Your task to perform on an android device: Empty the shopping cart on newegg. Image 0: 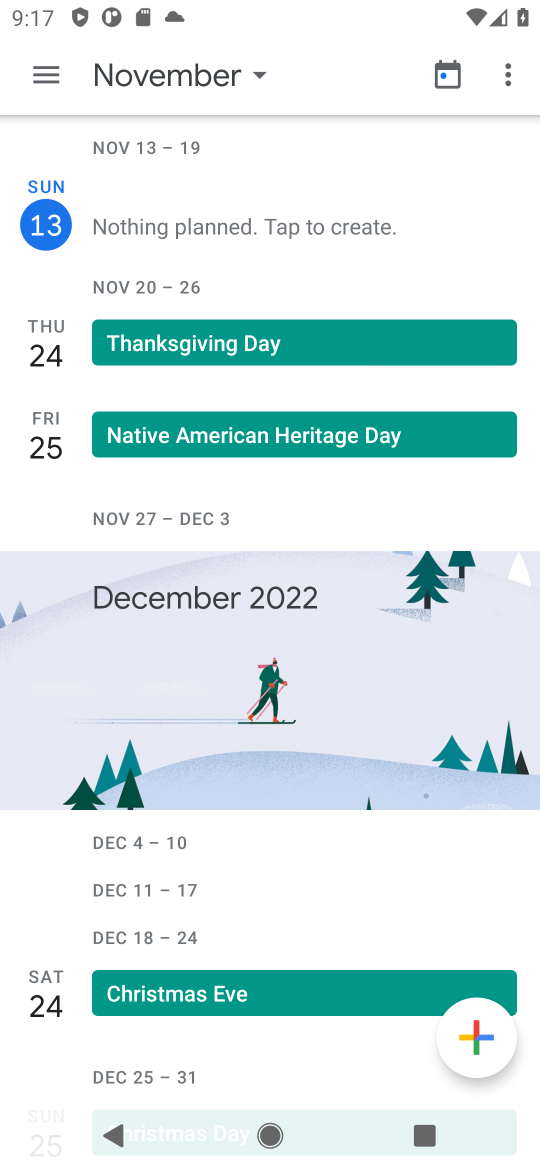
Step 0: press home button
Your task to perform on an android device: Empty the shopping cart on newegg. Image 1: 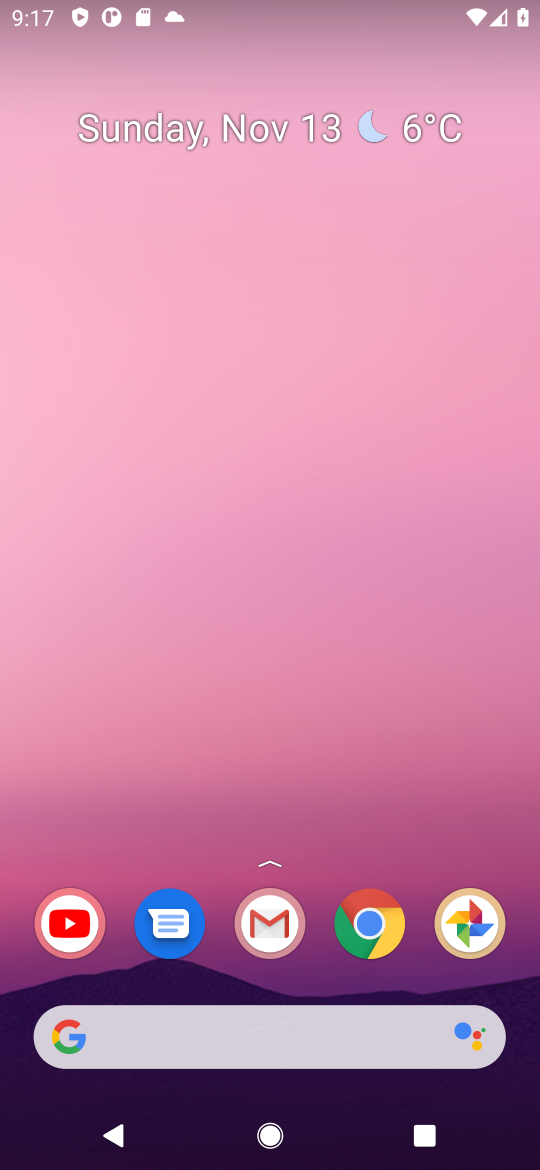
Step 1: click (379, 913)
Your task to perform on an android device: Empty the shopping cart on newegg. Image 2: 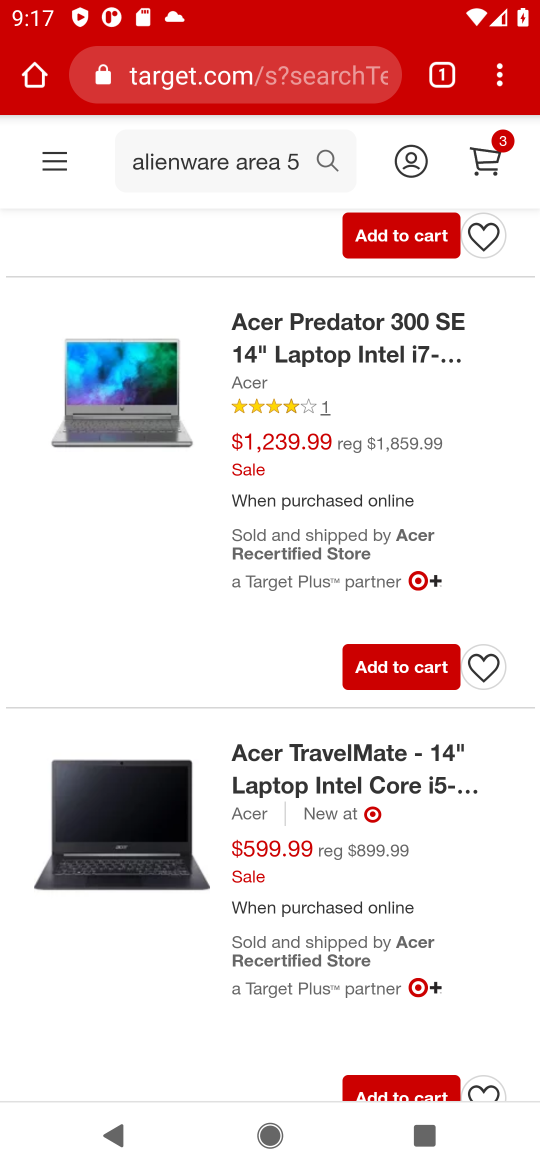
Step 2: click (310, 38)
Your task to perform on an android device: Empty the shopping cart on newegg. Image 3: 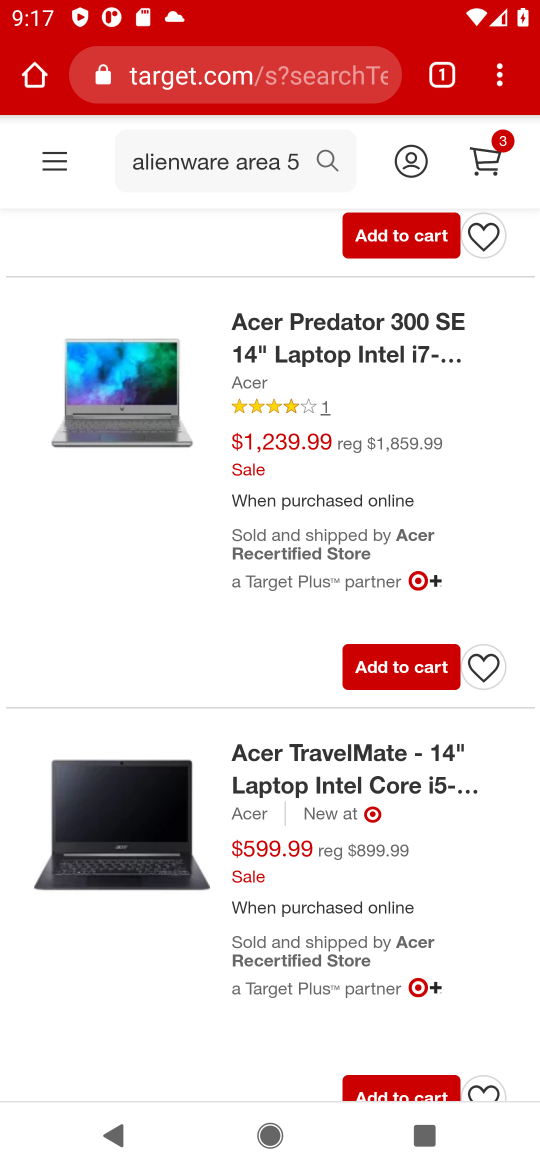
Step 3: click (317, 81)
Your task to perform on an android device: Empty the shopping cart on newegg. Image 4: 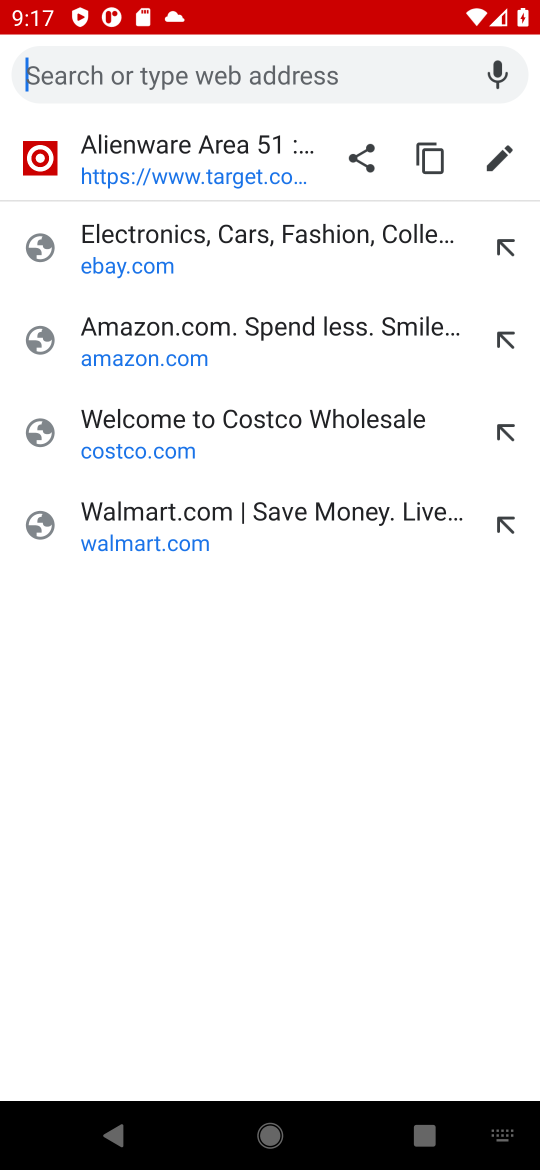
Step 4: type "newegg"
Your task to perform on an android device: Empty the shopping cart on newegg. Image 5: 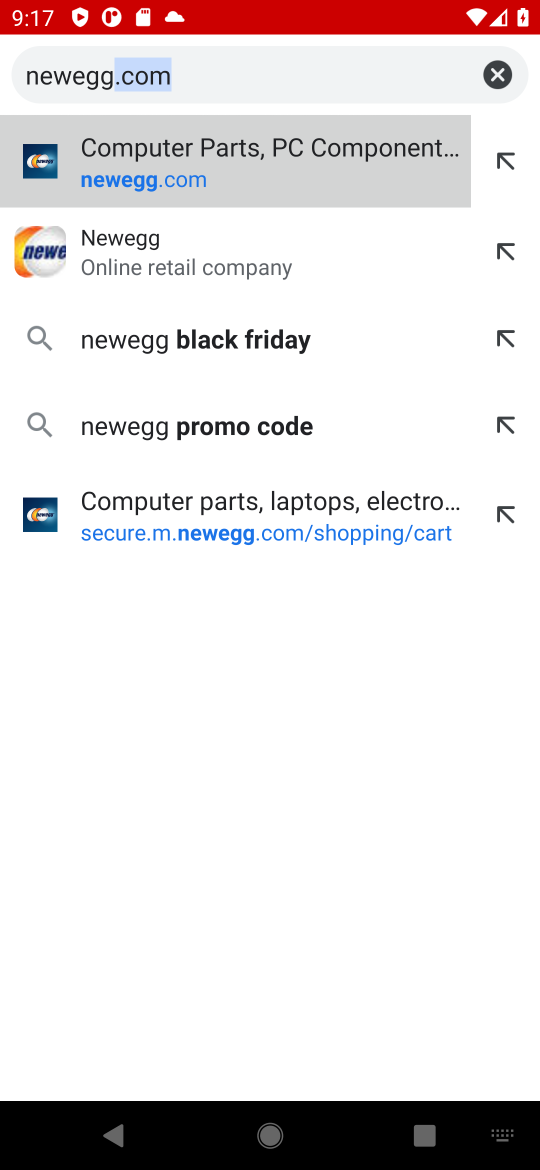
Step 5: press enter
Your task to perform on an android device: Empty the shopping cart on newegg. Image 6: 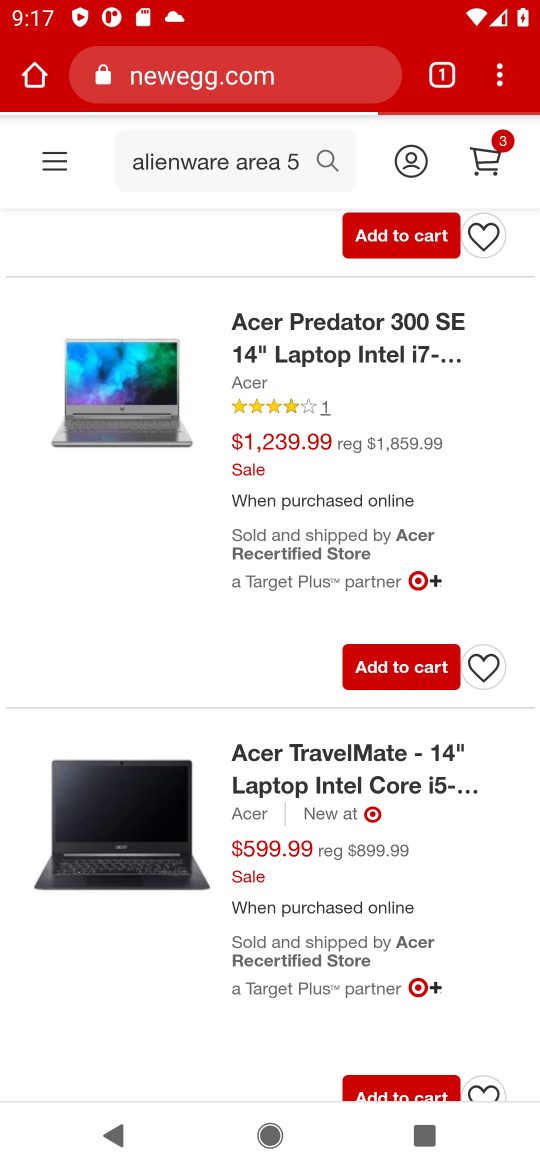
Step 6: click (288, 79)
Your task to perform on an android device: Empty the shopping cart on newegg. Image 7: 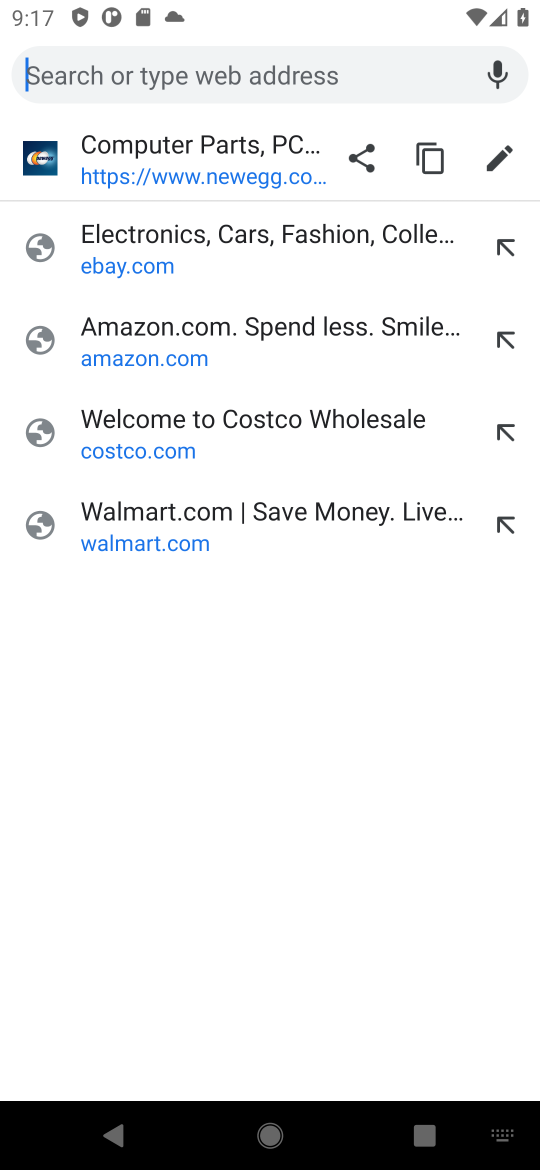
Step 7: click (257, 147)
Your task to perform on an android device: Empty the shopping cart on newegg. Image 8: 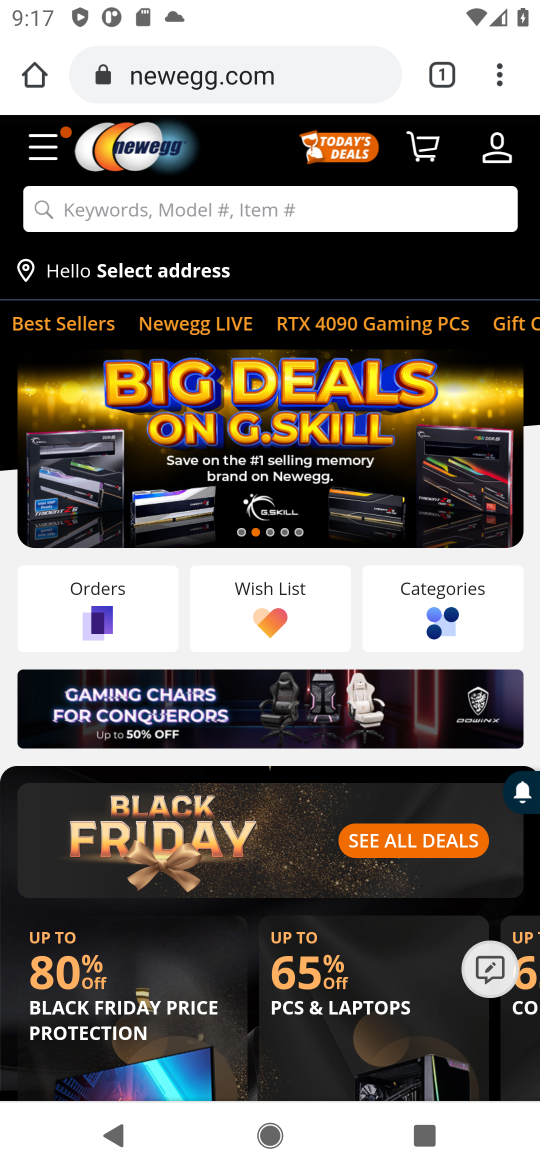
Step 8: click (425, 149)
Your task to perform on an android device: Empty the shopping cart on newegg. Image 9: 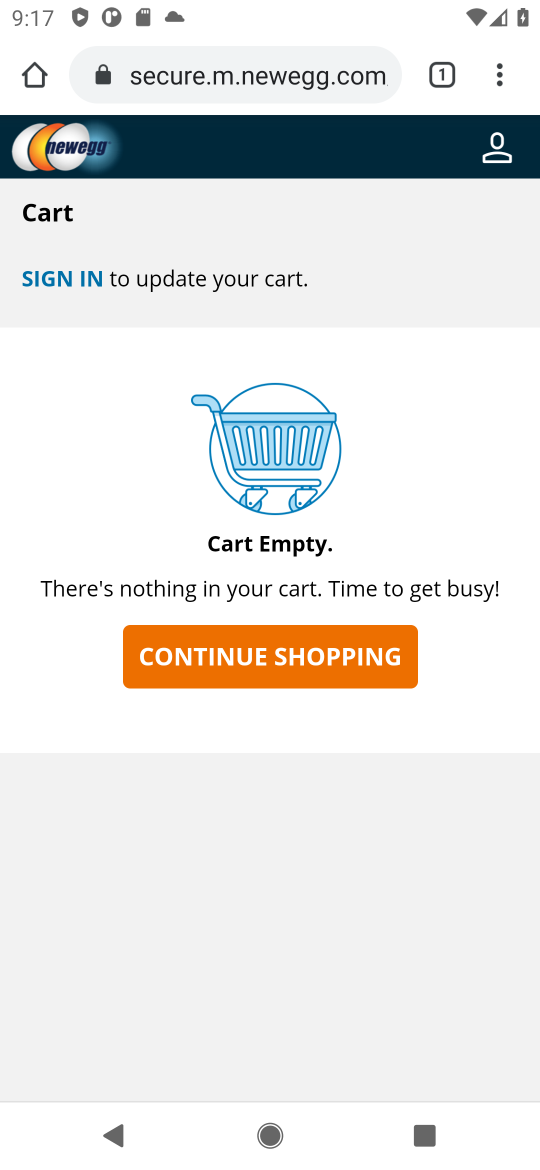
Step 9: task complete